Your task to perform on an android device: Open network settings Image 0: 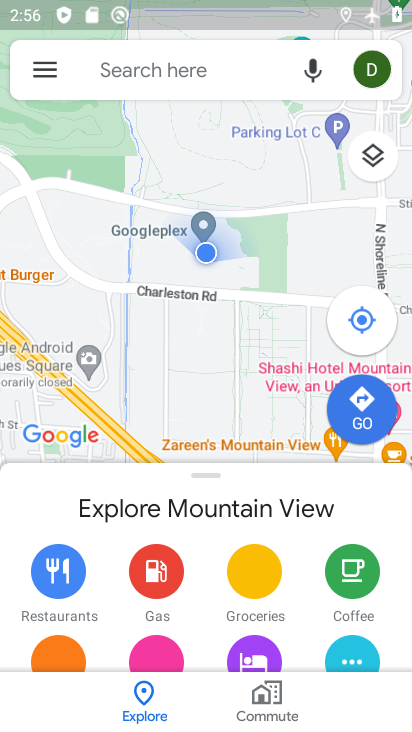
Step 0: press home button
Your task to perform on an android device: Open network settings Image 1: 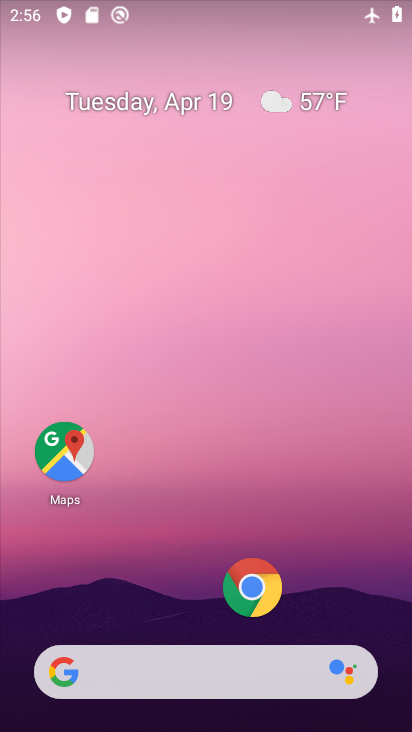
Step 1: drag from (164, 565) to (295, 3)
Your task to perform on an android device: Open network settings Image 2: 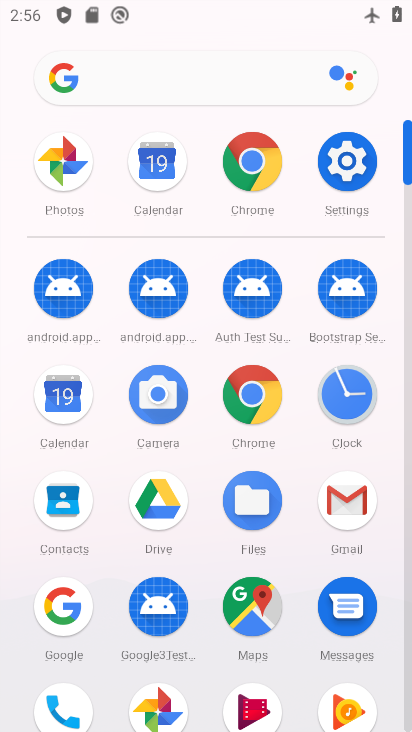
Step 2: click (352, 172)
Your task to perform on an android device: Open network settings Image 3: 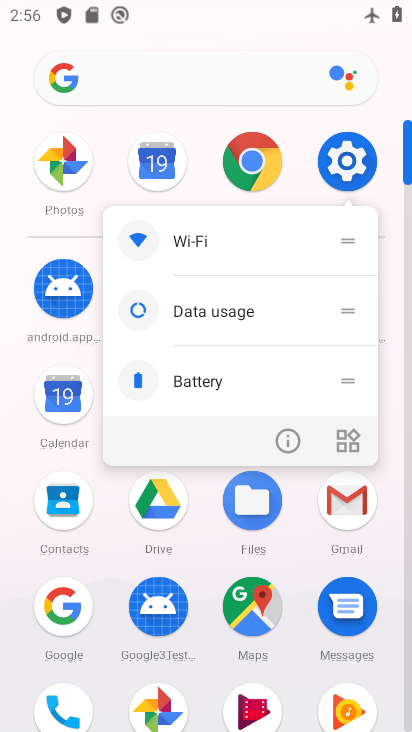
Step 3: click (351, 170)
Your task to perform on an android device: Open network settings Image 4: 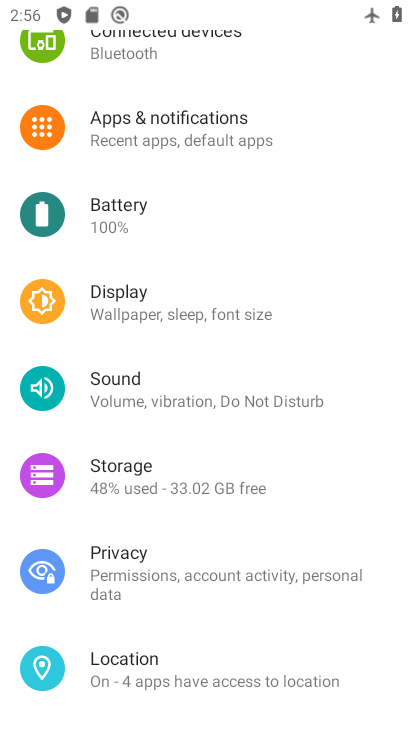
Step 4: drag from (252, 150) to (241, 584)
Your task to perform on an android device: Open network settings Image 5: 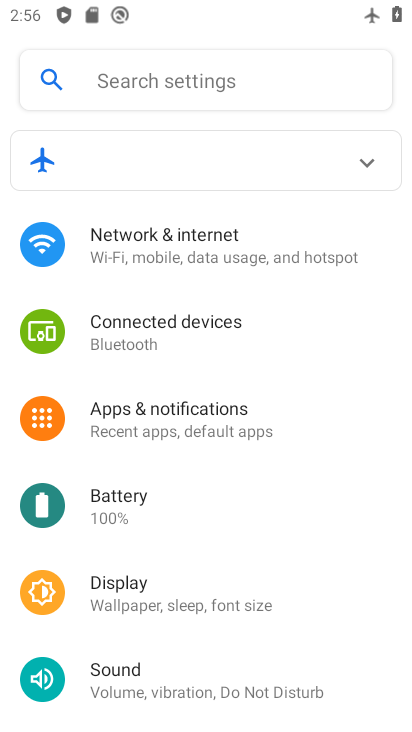
Step 5: click (157, 253)
Your task to perform on an android device: Open network settings Image 6: 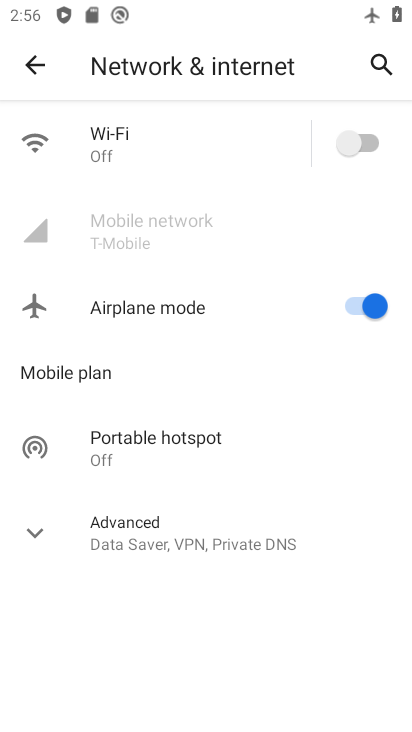
Step 6: task complete